Your task to perform on an android device: Empty the shopping cart on ebay. Image 0: 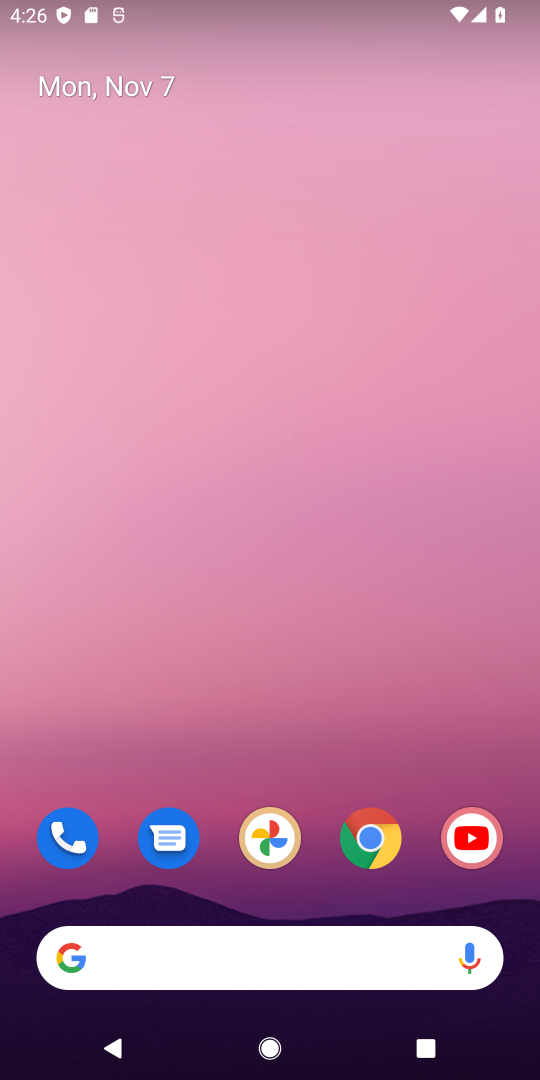
Step 0: click (389, 853)
Your task to perform on an android device: Empty the shopping cart on ebay. Image 1: 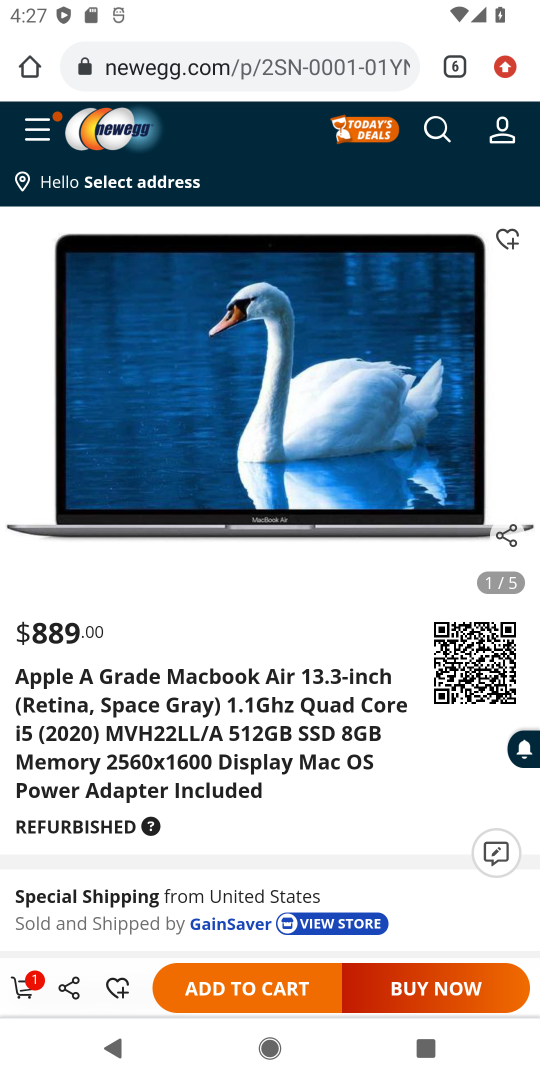
Step 1: click (455, 57)
Your task to perform on an android device: Empty the shopping cart on ebay. Image 2: 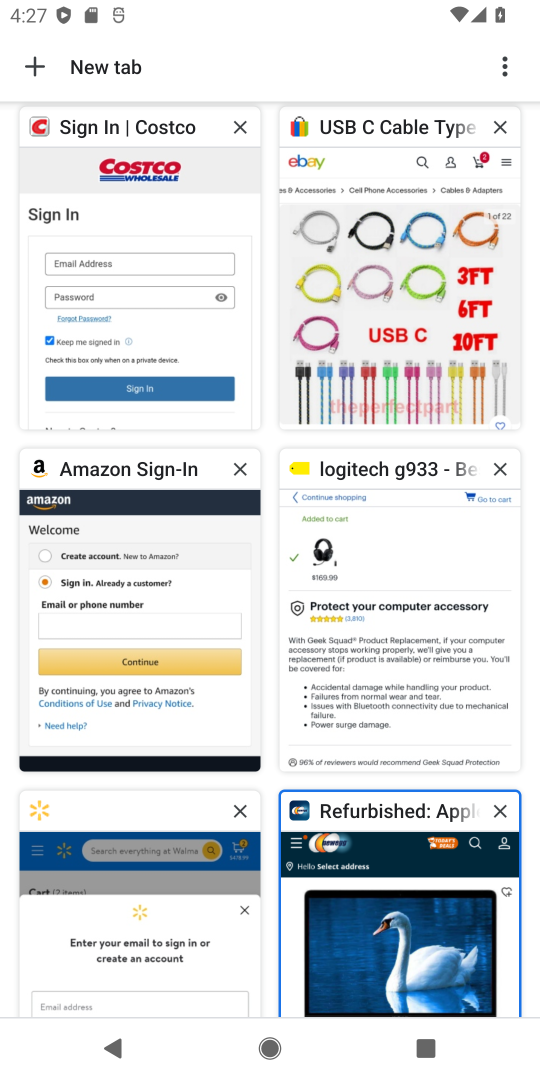
Step 2: click (396, 282)
Your task to perform on an android device: Empty the shopping cart on ebay. Image 3: 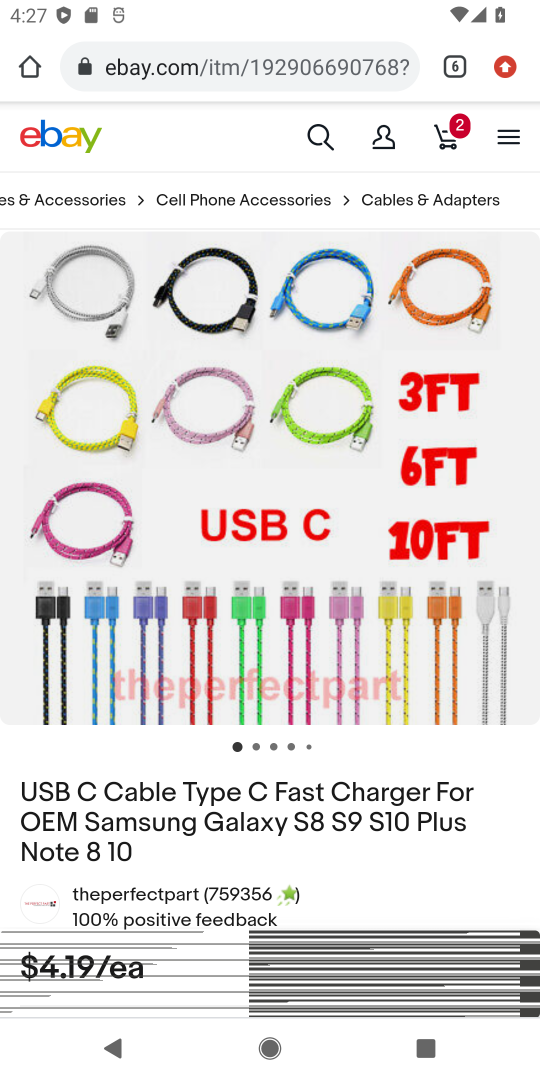
Step 3: click (447, 137)
Your task to perform on an android device: Empty the shopping cart on ebay. Image 4: 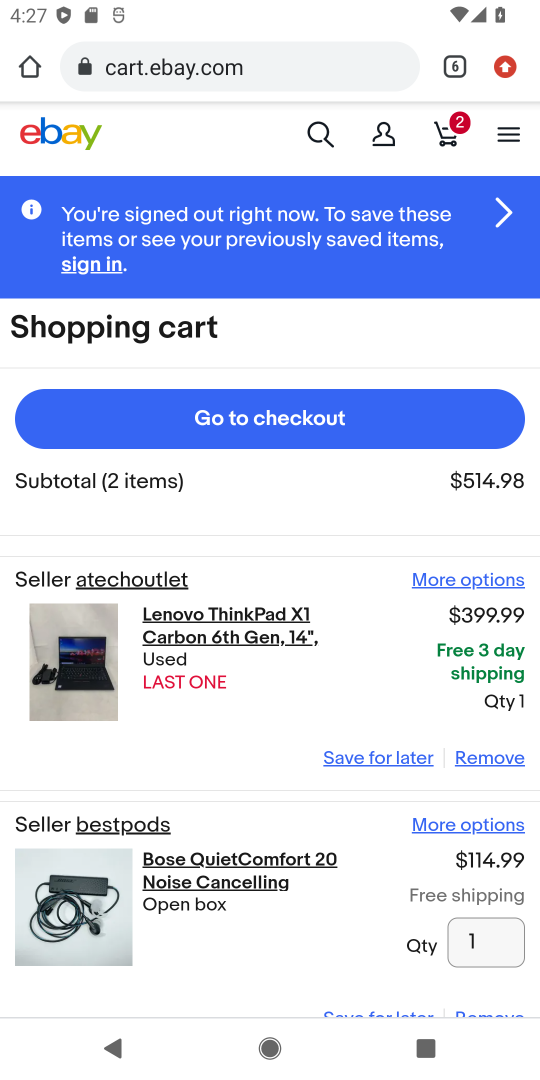
Step 4: click (482, 761)
Your task to perform on an android device: Empty the shopping cart on ebay. Image 5: 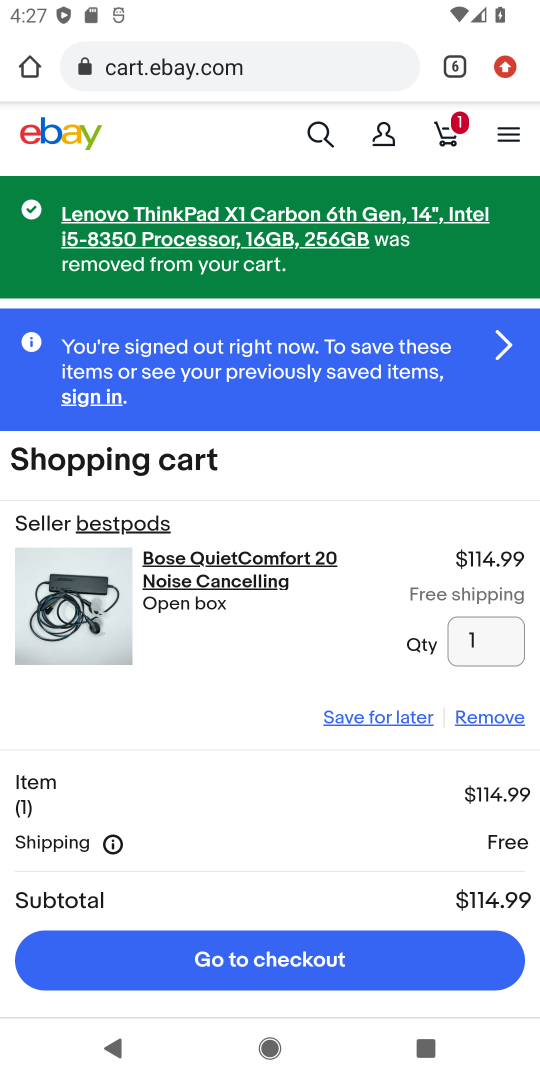
Step 5: click (508, 712)
Your task to perform on an android device: Empty the shopping cart on ebay. Image 6: 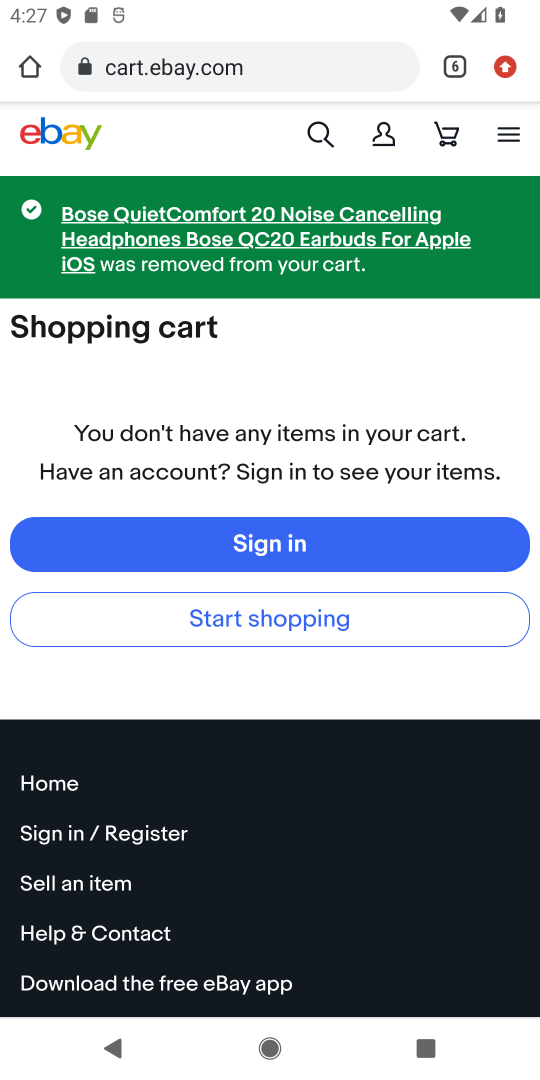
Step 6: task complete